Your task to perform on an android device: change the clock display to analog Image 0: 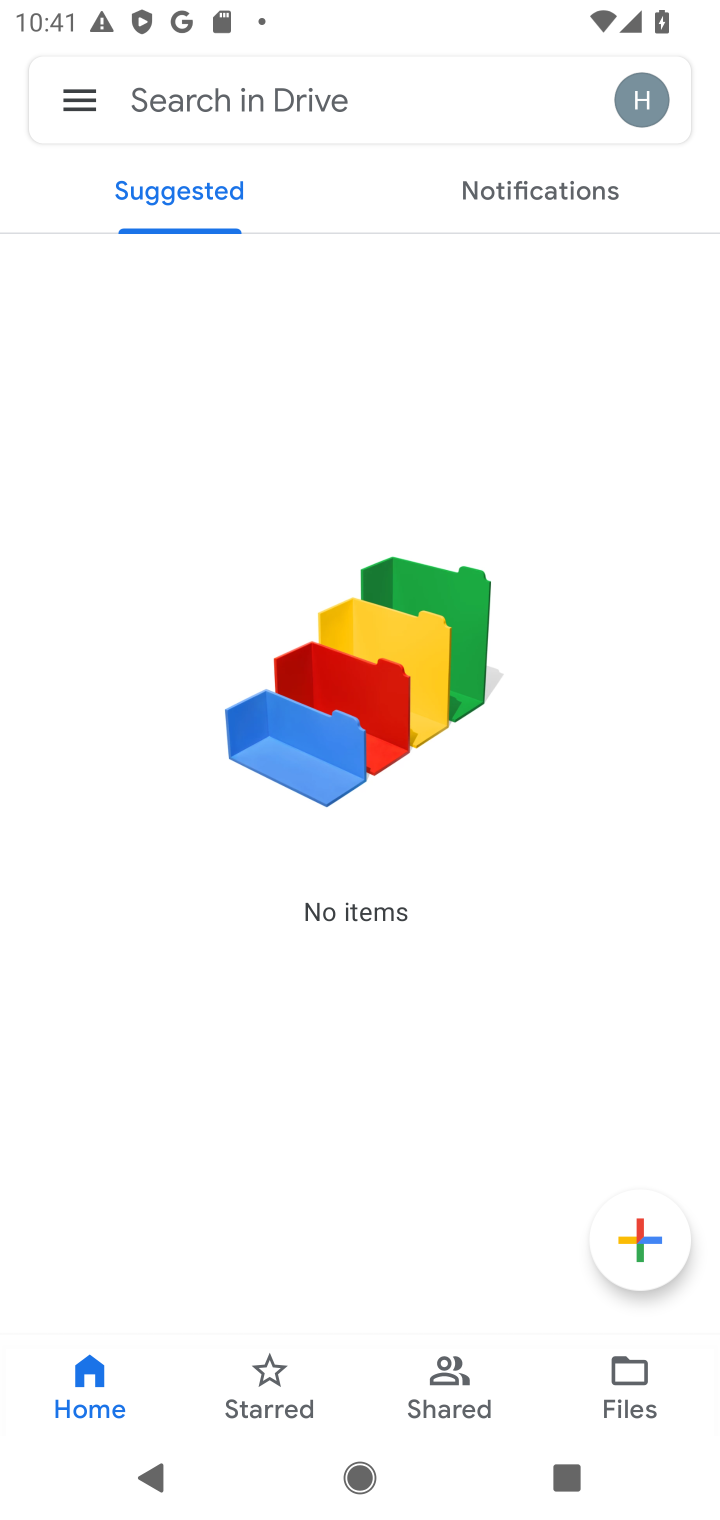
Step 0: press home button
Your task to perform on an android device: change the clock display to analog Image 1: 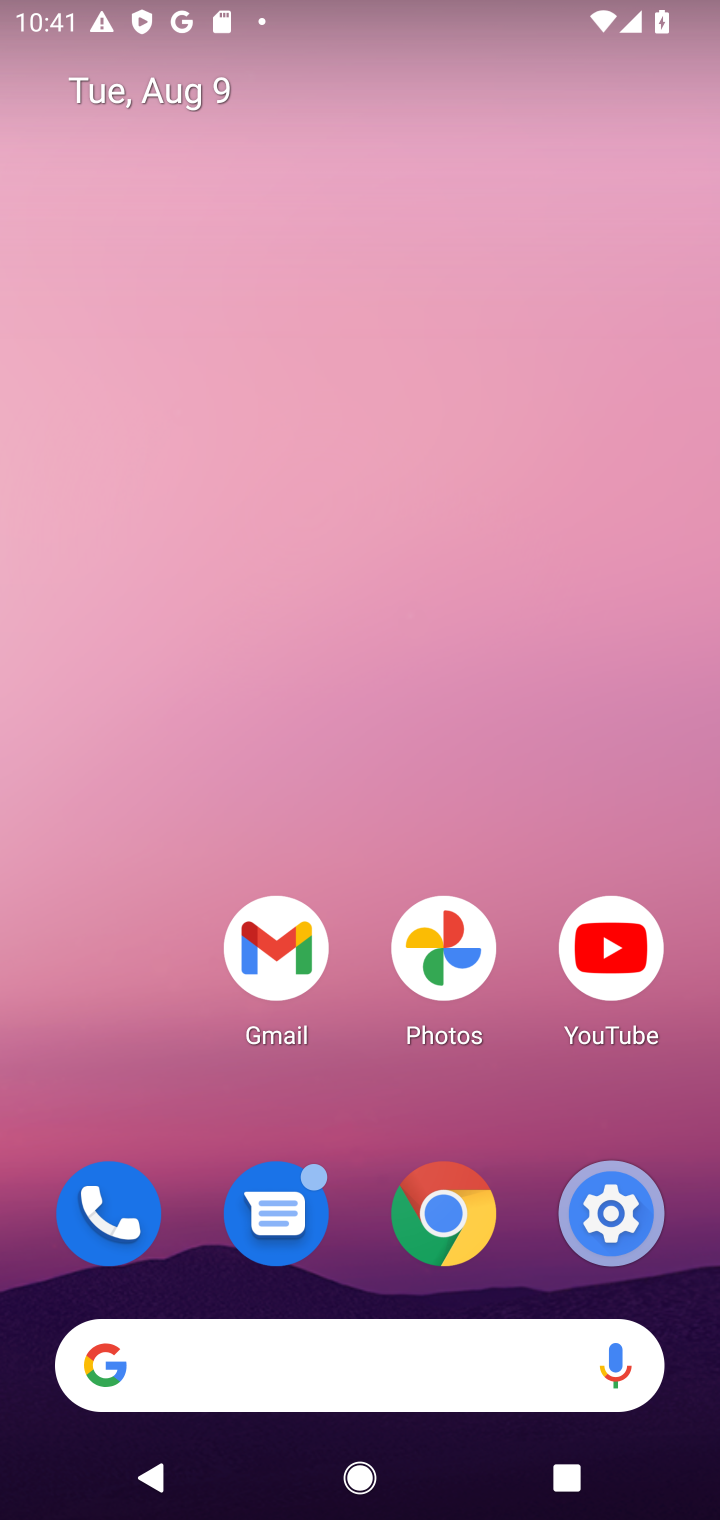
Step 1: drag from (398, 1303) to (340, 2)
Your task to perform on an android device: change the clock display to analog Image 2: 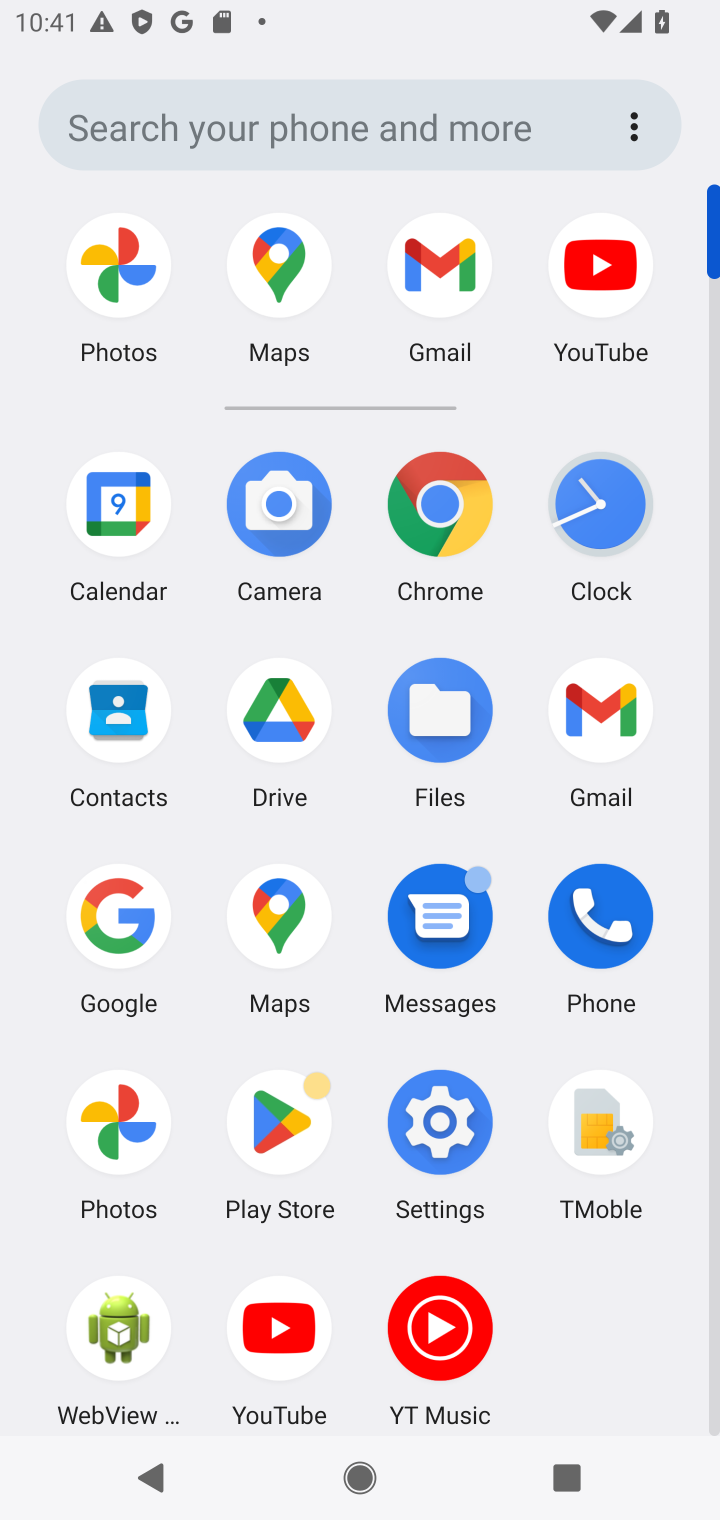
Step 2: click (592, 535)
Your task to perform on an android device: change the clock display to analog Image 3: 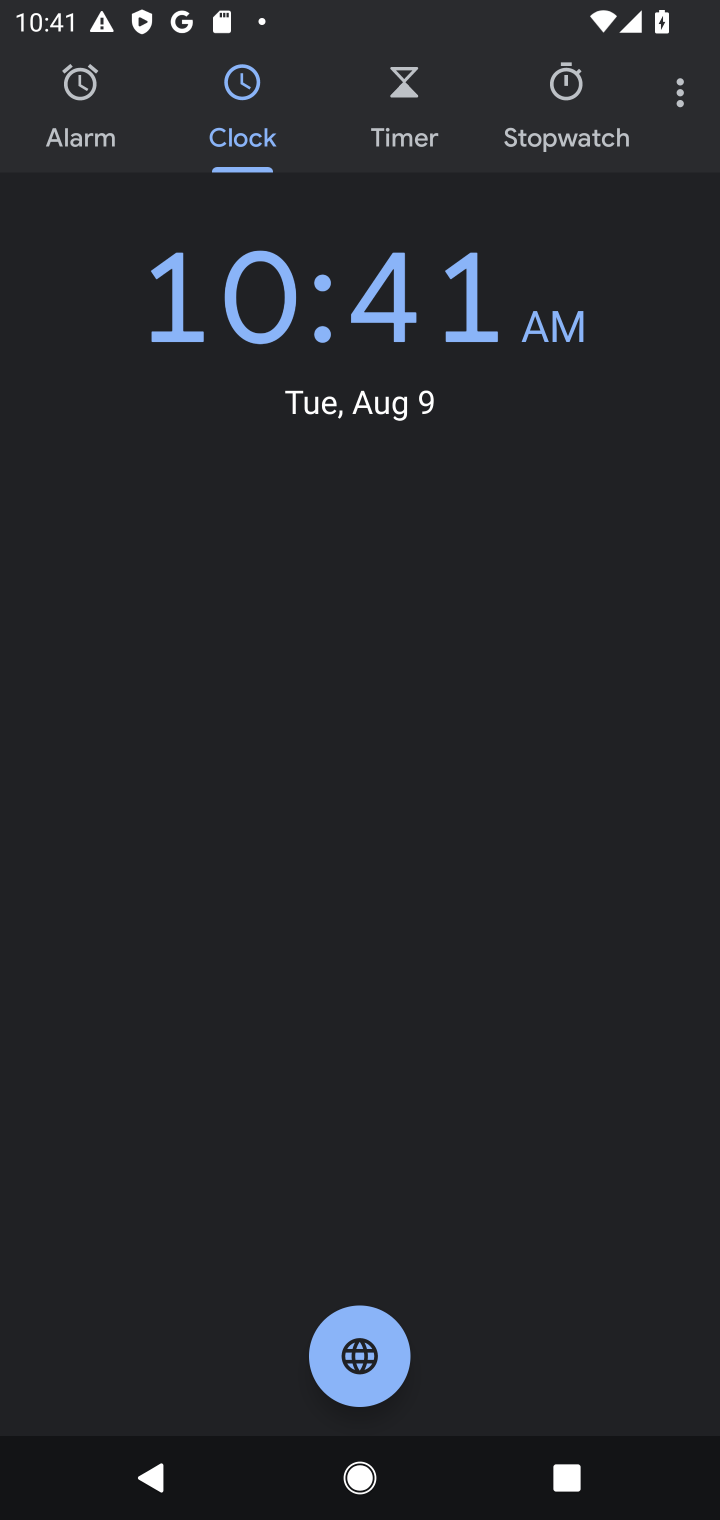
Step 3: click (658, 57)
Your task to perform on an android device: change the clock display to analog Image 4: 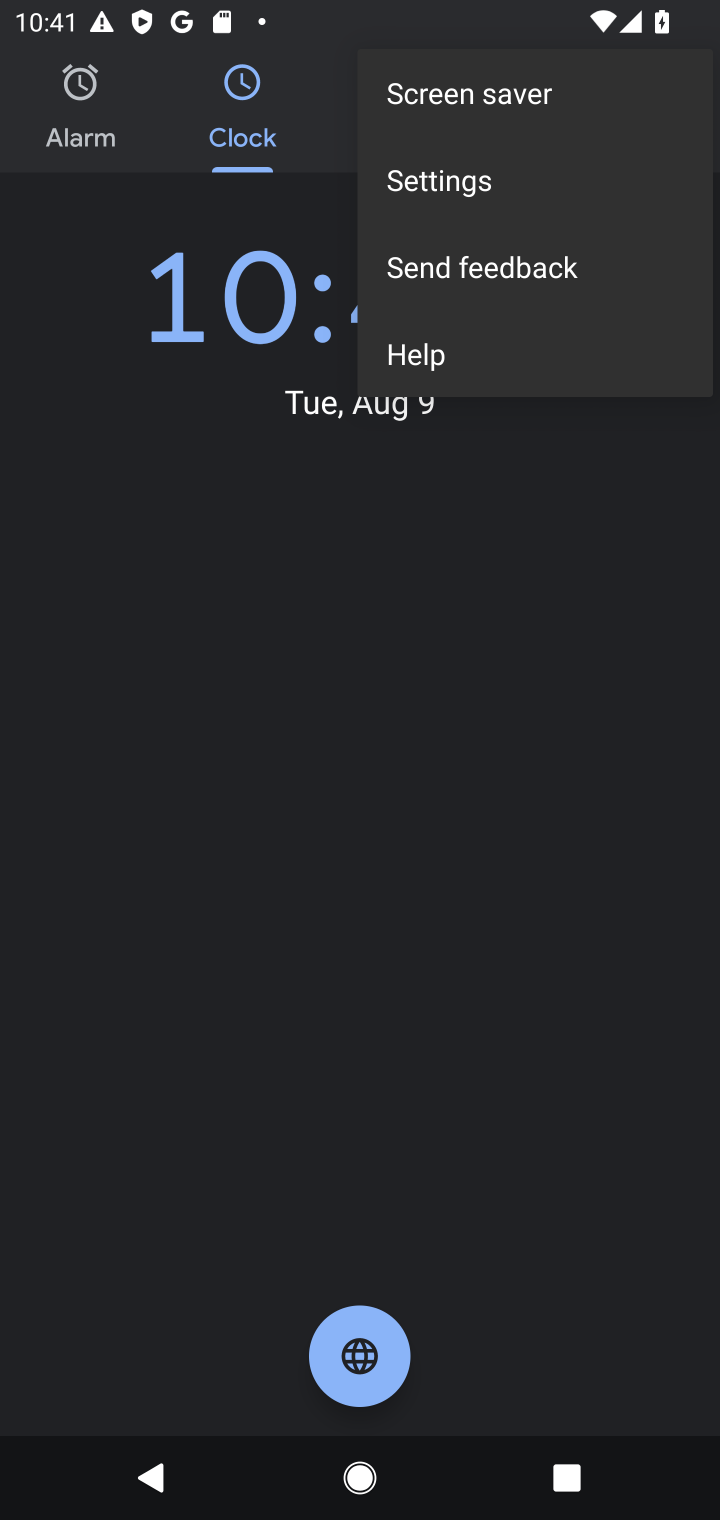
Step 4: click (474, 196)
Your task to perform on an android device: change the clock display to analog Image 5: 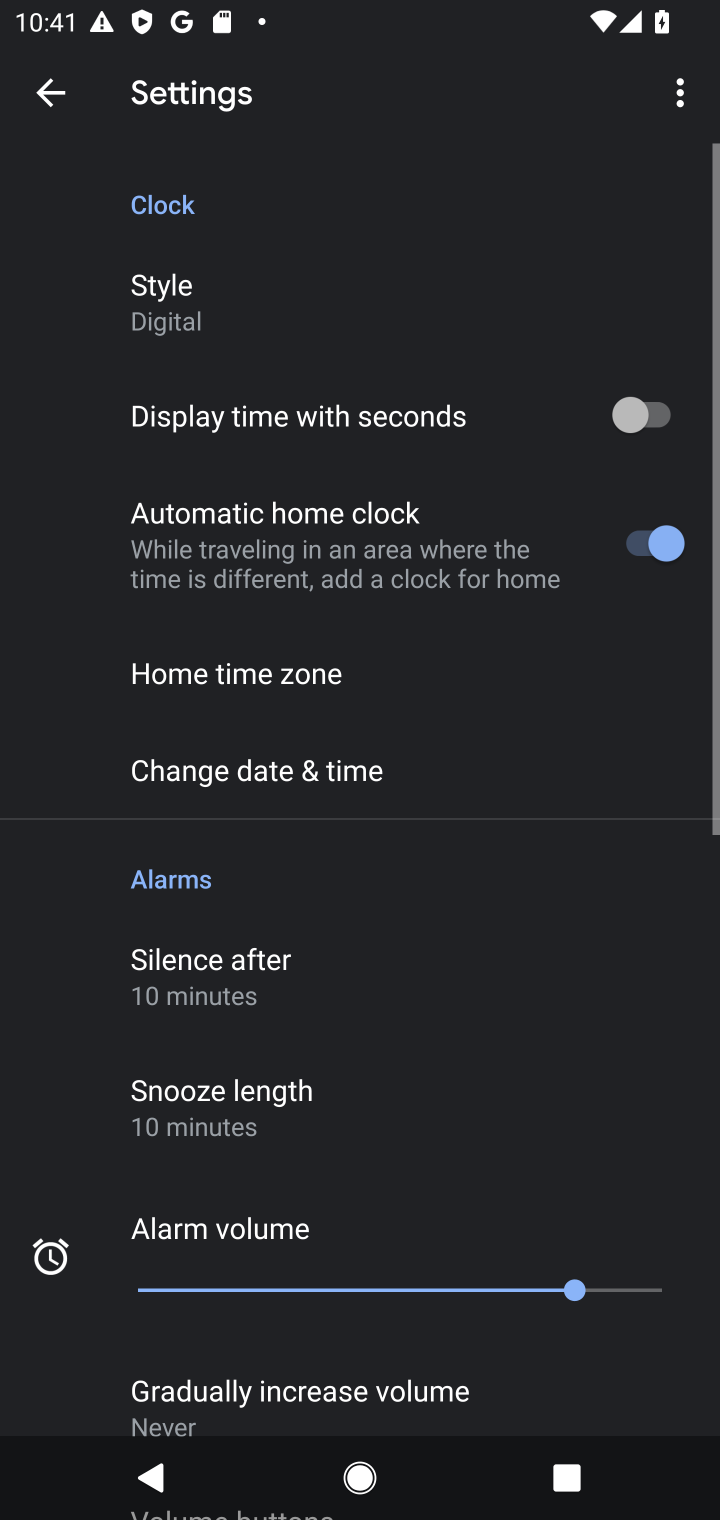
Step 5: click (192, 288)
Your task to perform on an android device: change the clock display to analog Image 6: 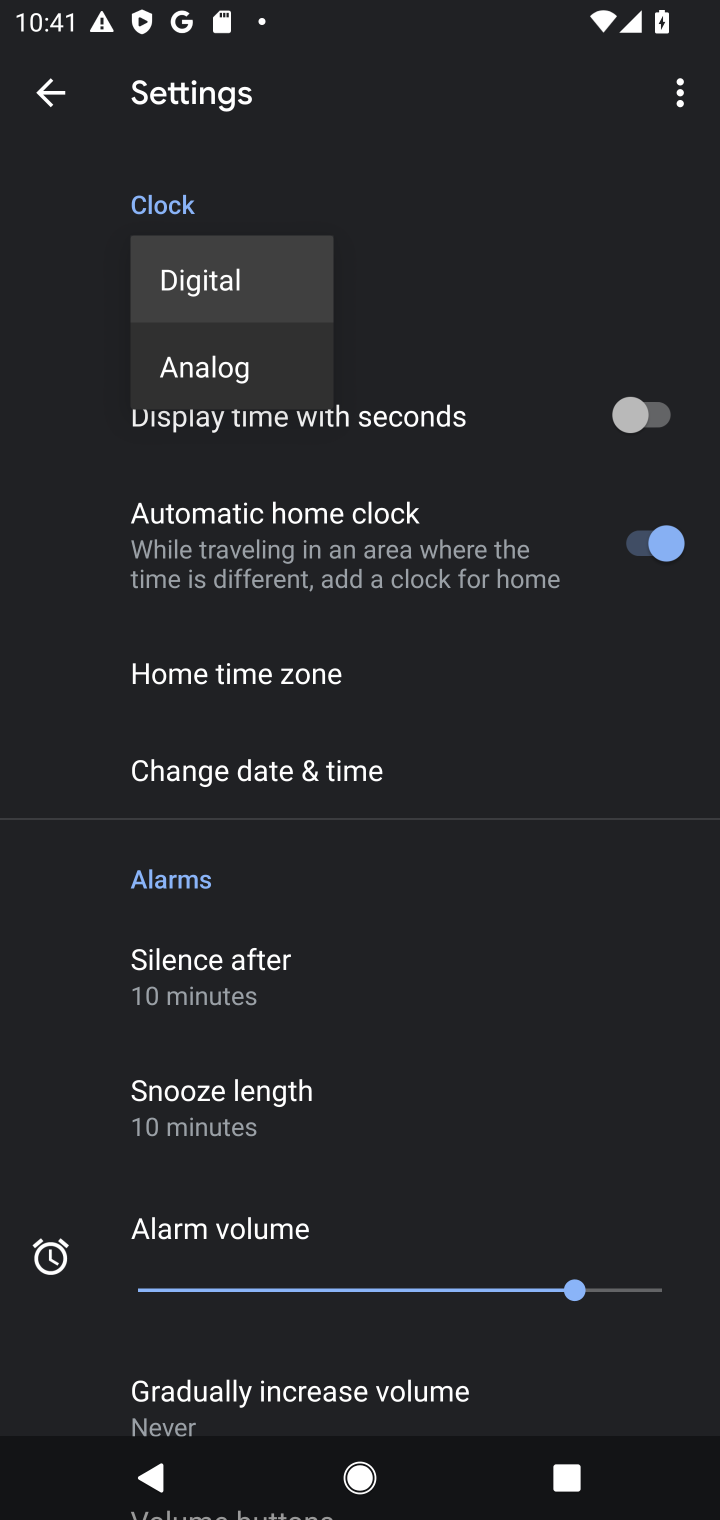
Step 6: click (248, 367)
Your task to perform on an android device: change the clock display to analog Image 7: 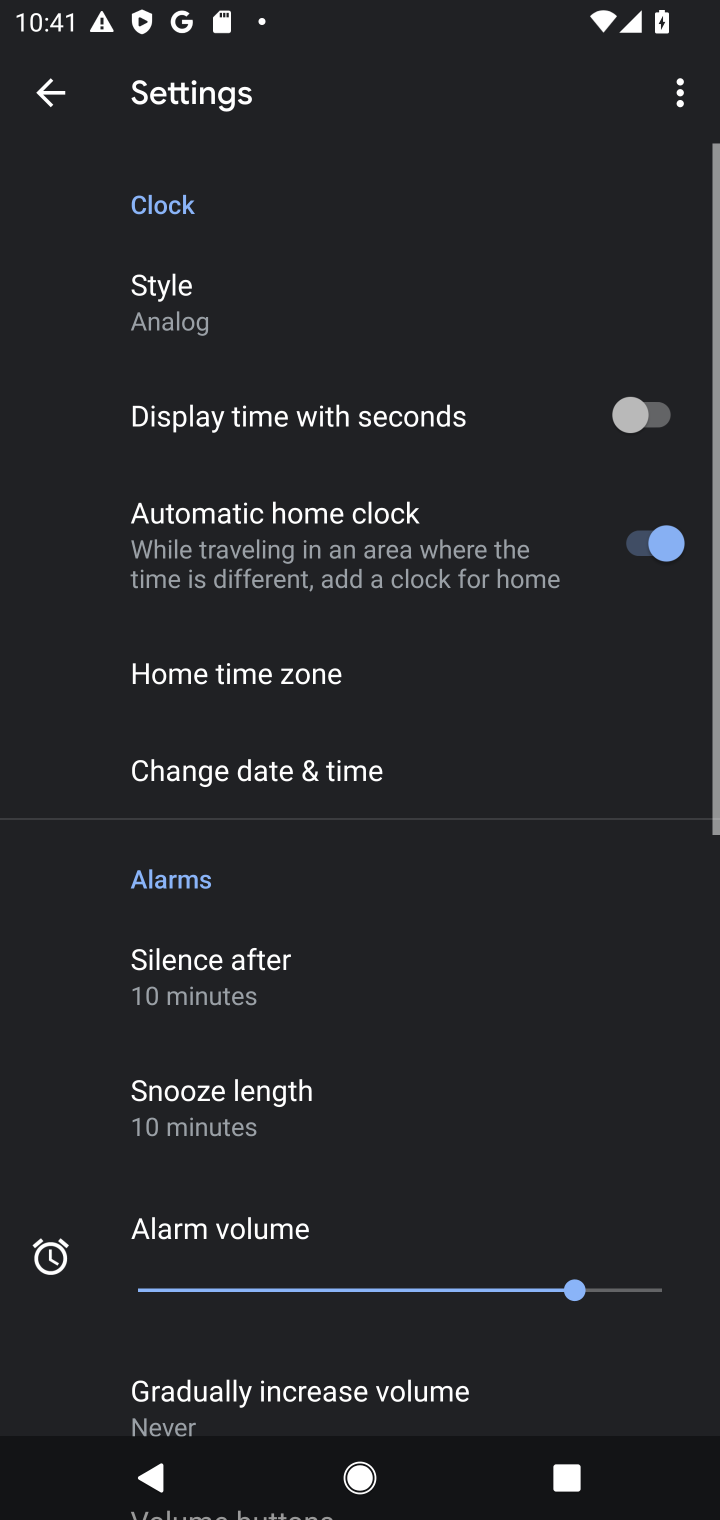
Step 7: task complete